Your task to perform on an android device: Go to location settings Image 0: 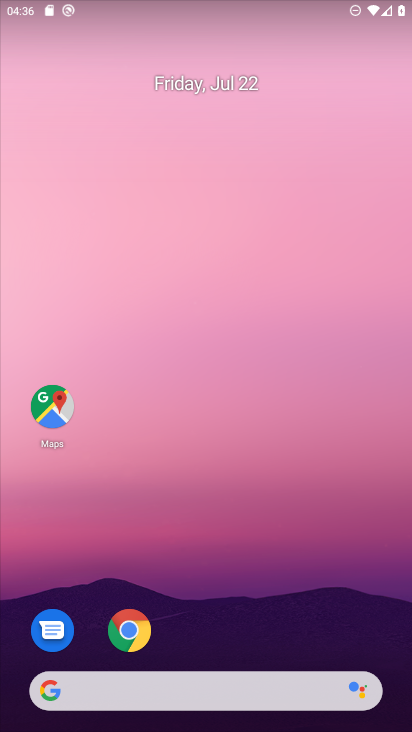
Step 0: drag from (192, 617) to (214, 155)
Your task to perform on an android device: Go to location settings Image 1: 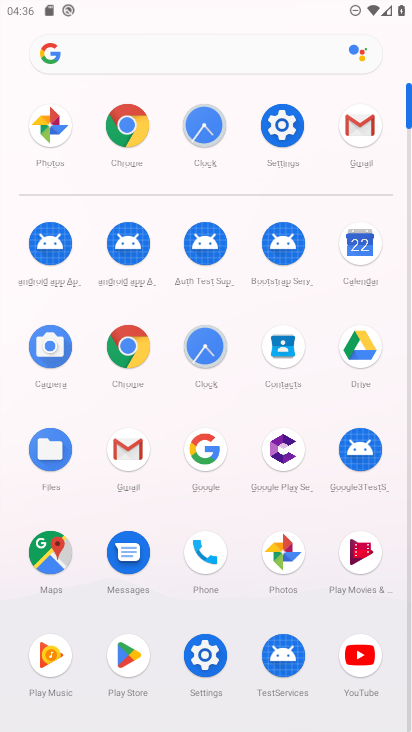
Step 1: click (216, 648)
Your task to perform on an android device: Go to location settings Image 2: 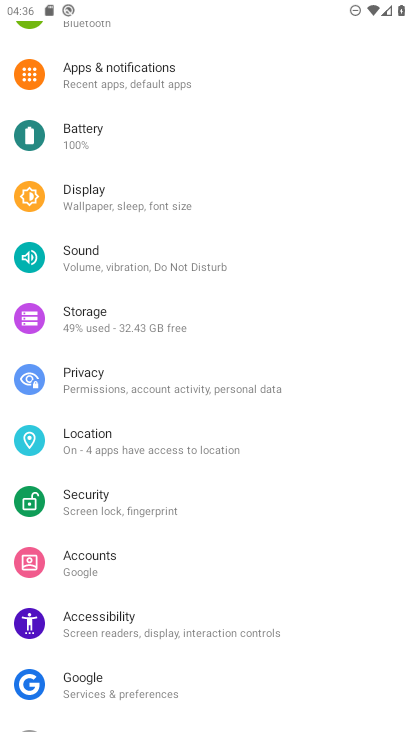
Step 2: click (120, 445)
Your task to perform on an android device: Go to location settings Image 3: 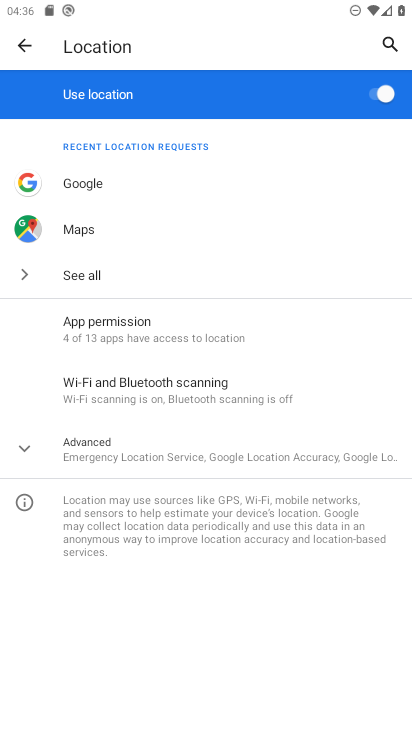
Step 3: task complete